Your task to perform on an android device: Open the Play Movies app and select the watchlist tab. Image 0: 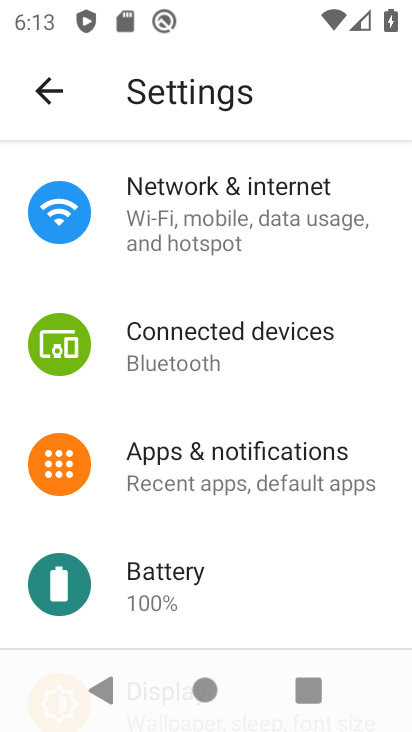
Step 0: press home button
Your task to perform on an android device: Open the Play Movies app and select the watchlist tab. Image 1: 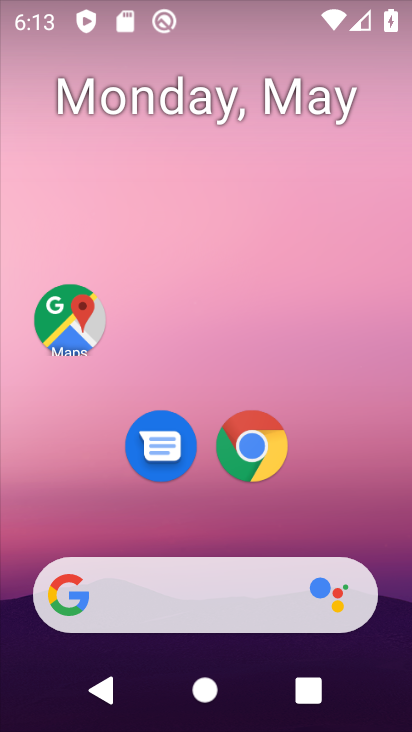
Step 1: drag from (338, 522) to (258, 168)
Your task to perform on an android device: Open the Play Movies app and select the watchlist tab. Image 2: 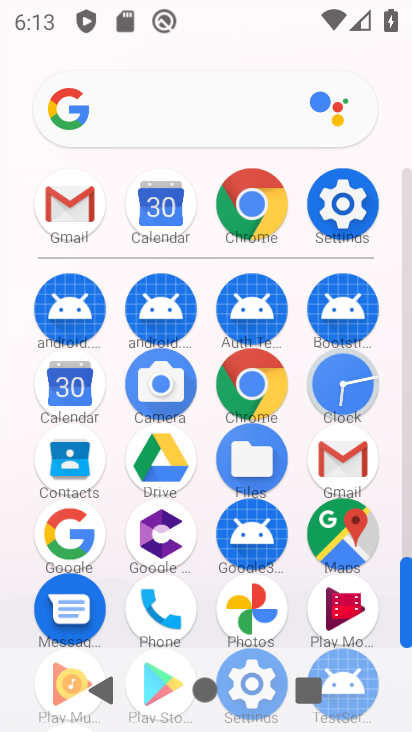
Step 2: drag from (202, 560) to (188, 318)
Your task to perform on an android device: Open the Play Movies app and select the watchlist tab. Image 3: 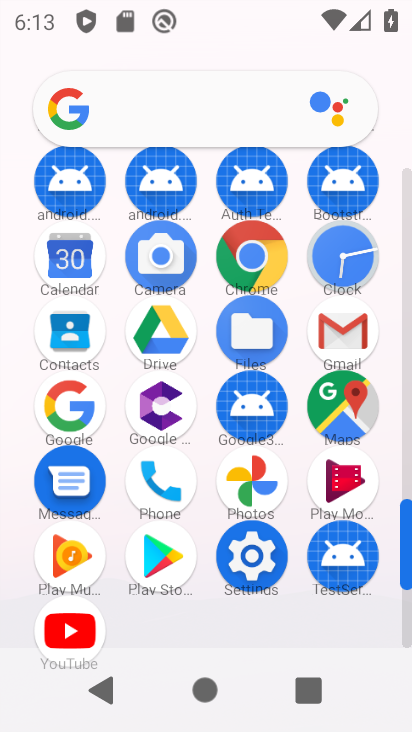
Step 3: click (326, 479)
Your task to perform on an android device: Open the Play Movies app and select the watchlist tab. Image 4: 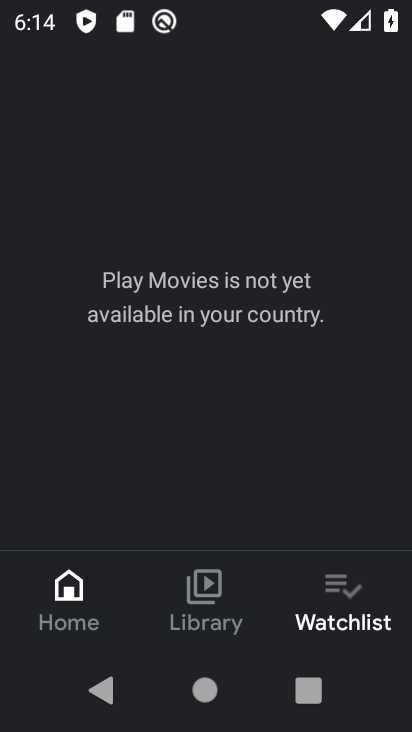
Step 4: click (329, 598)
Your task to perform on an android device: Open the Play Movies app and select the watchlist tab. Image 5: 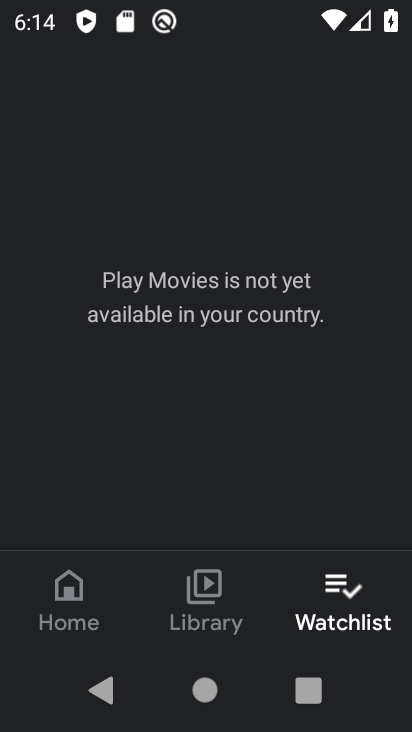
Step 5: task complete